Your task to perform on an android device: Turn on the flashlight Image 0: 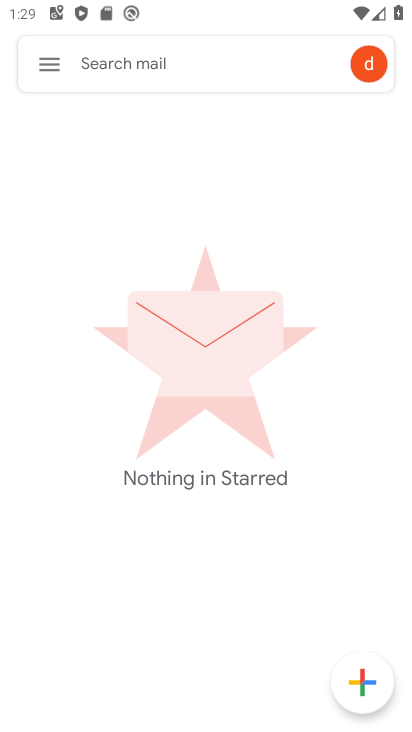
Step 0: drag from (386, 6) to (314, 553)
Your task to perform on an android device: Turn on the flashlight Image 1: 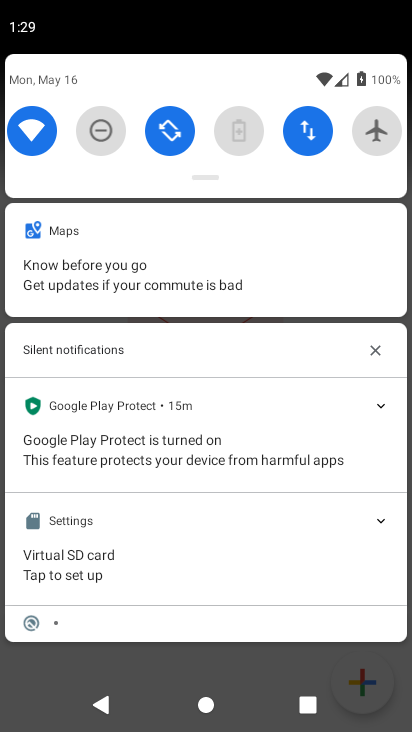
Step 1: drag from (205, 169) to (212, 722)
Your task to perform on an android device: Turn on the flashlight Image 2: 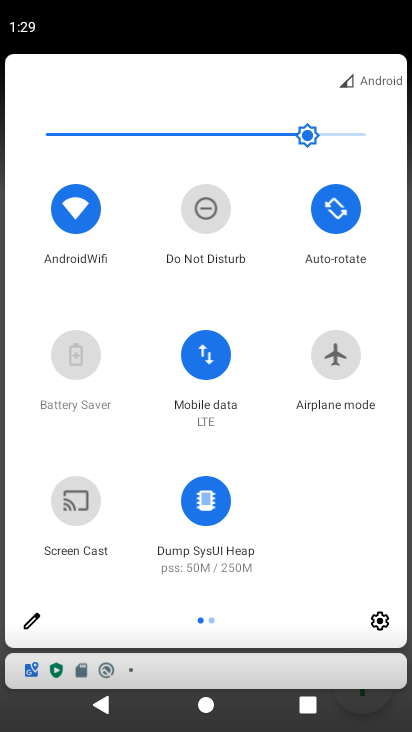
Step 2: click (32, 627)
Your task to perform on an android device: Turn on the flashlight Image 3: 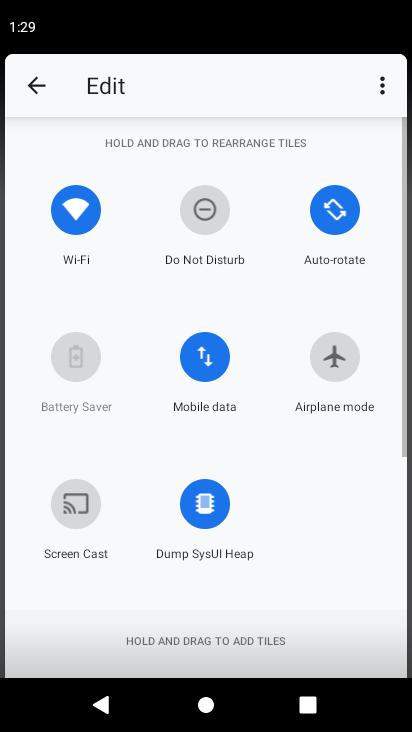
Step 3: task complete